Your task to perform on an android device: see sites visited before in the chrome app Image 0: 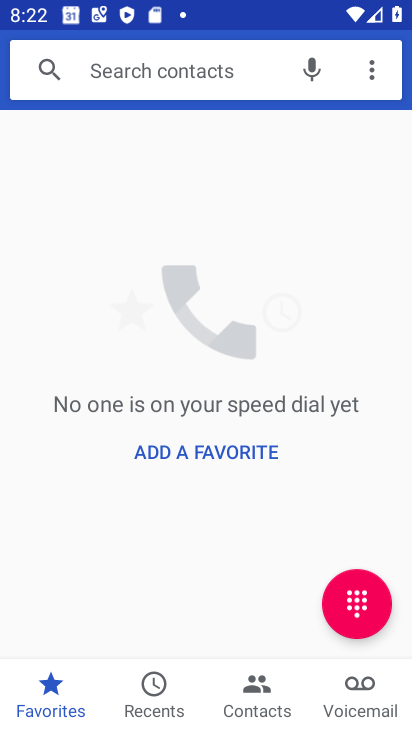
Step 0: press home button
Your task to perform on an android device: see sites visited before in the chrome app Image 1: 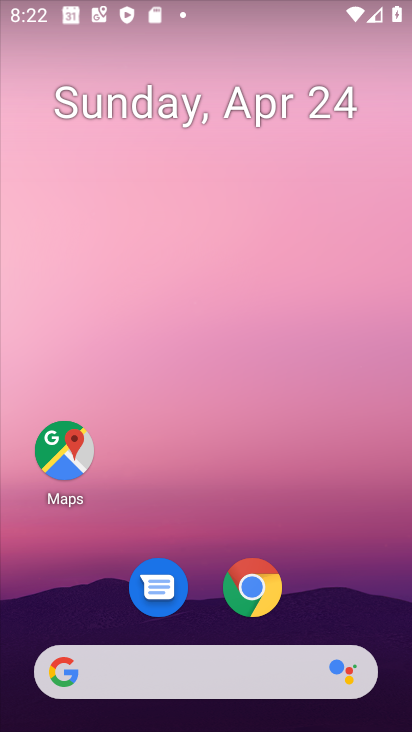
Step 1: drag from (337, 601) to (264, 155)
Your task to perform on an android device: see sites visited before in the chrome app Image 2: 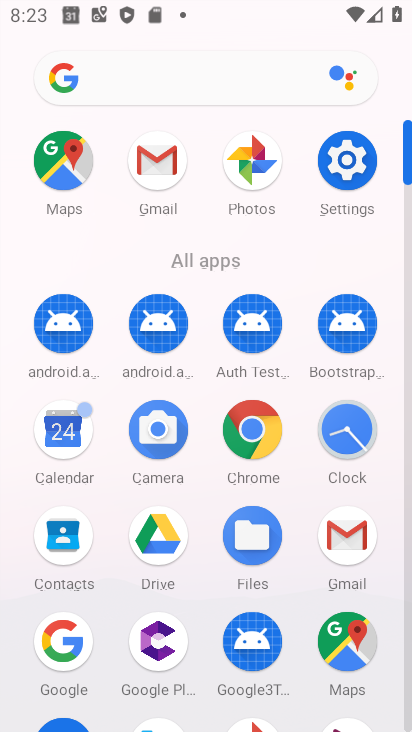
Step 2: click (247, 420)
Your task to perform on an android device: see sites visited before in the chrome app Image 3: 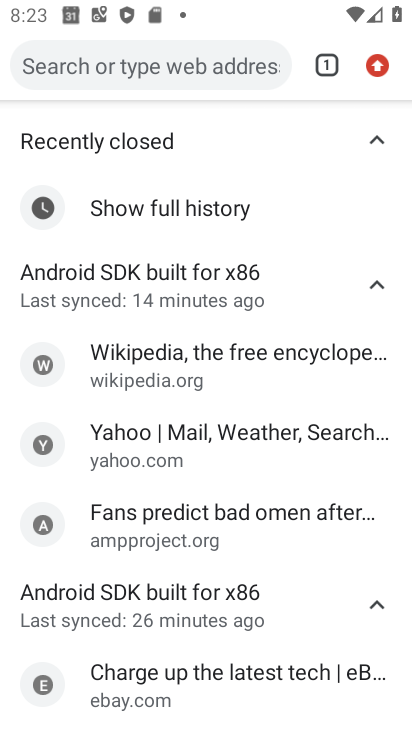
Step 3: click (379, 66)
Your task to perform on an android device: see sites visited before in the chrome app Image 4: 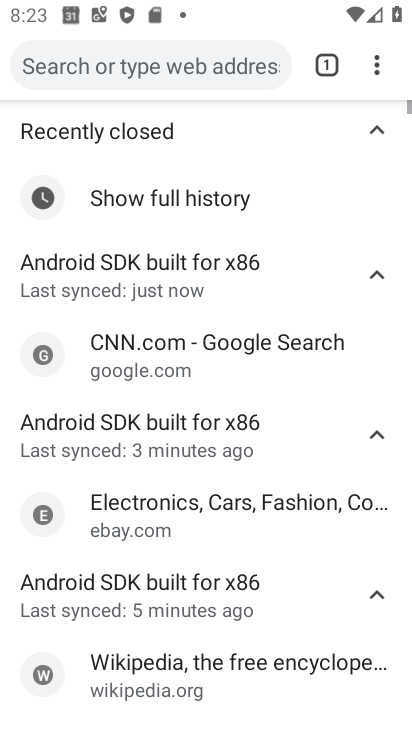
Step 4: click (375, 79)
Your task to perform on an android device: see sites visited before in the chrome app Image 5: 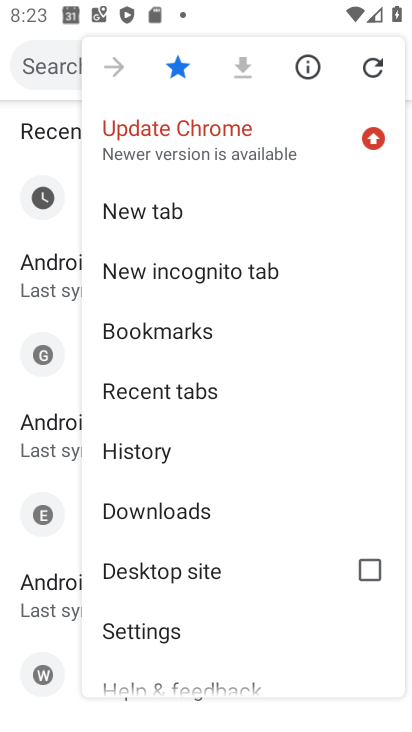
Step 5: click (150, 452)
Your task to perform on an android device: see sites visited before in the chrome app Image 6: 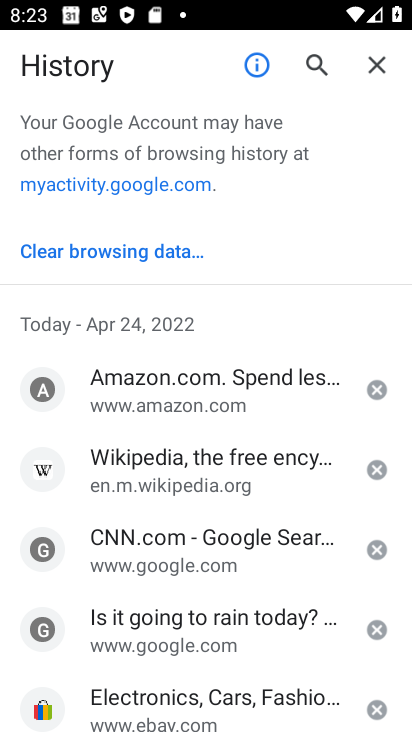
Step 6: task complete